Your task to perform on an android device: What's the weather today? Image 0: 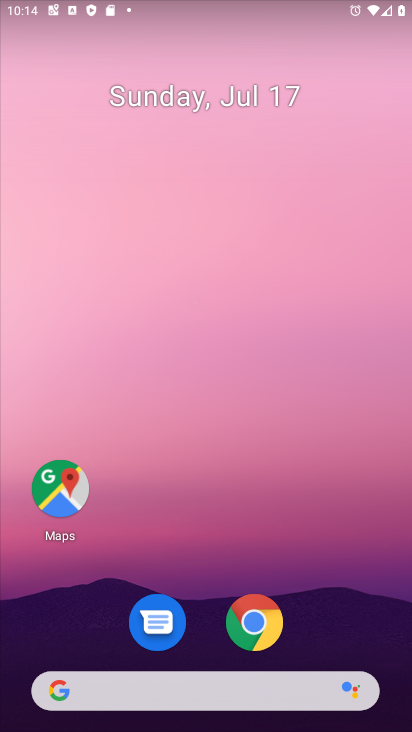
Step 0: click (222, 692)
Your task to perform on an android device: What's the weather today? Image 1: 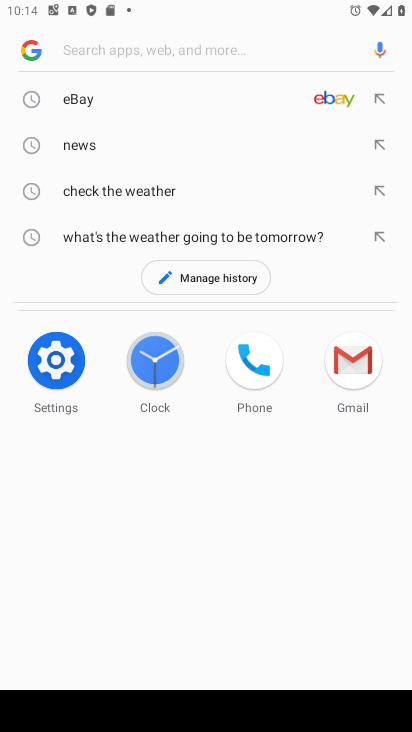
Step 1: type "weather today "
Your task to perform on an android device: What's the weather today? Image 2: 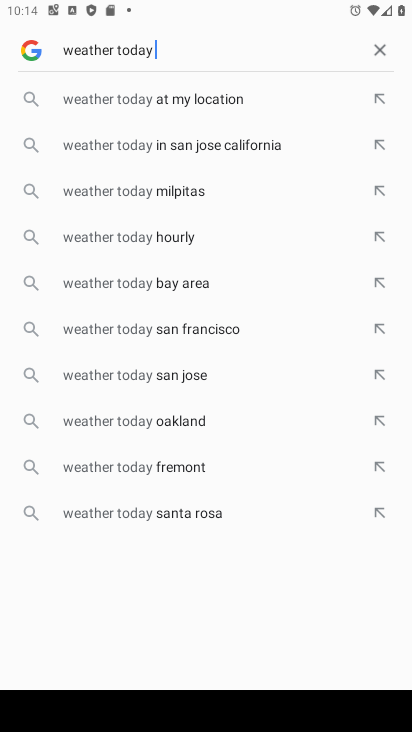
Step 2: press enter
Your task to perform on an android device: What's the weather today? Image 3: 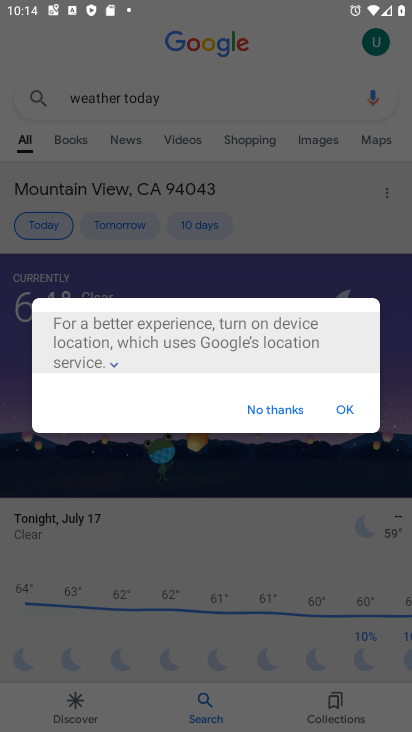
Step 3: click (264, 413)
Your task to perform on an android device: What's the weather today? Image 4: 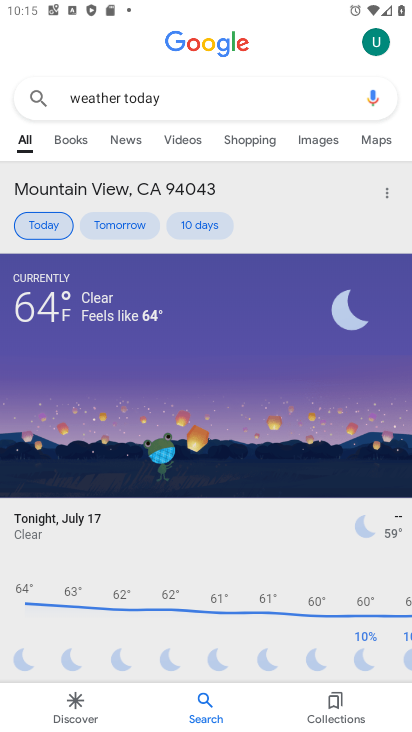
Step 4: task complete